Your task to perform on an android device: Open maps Image 0: 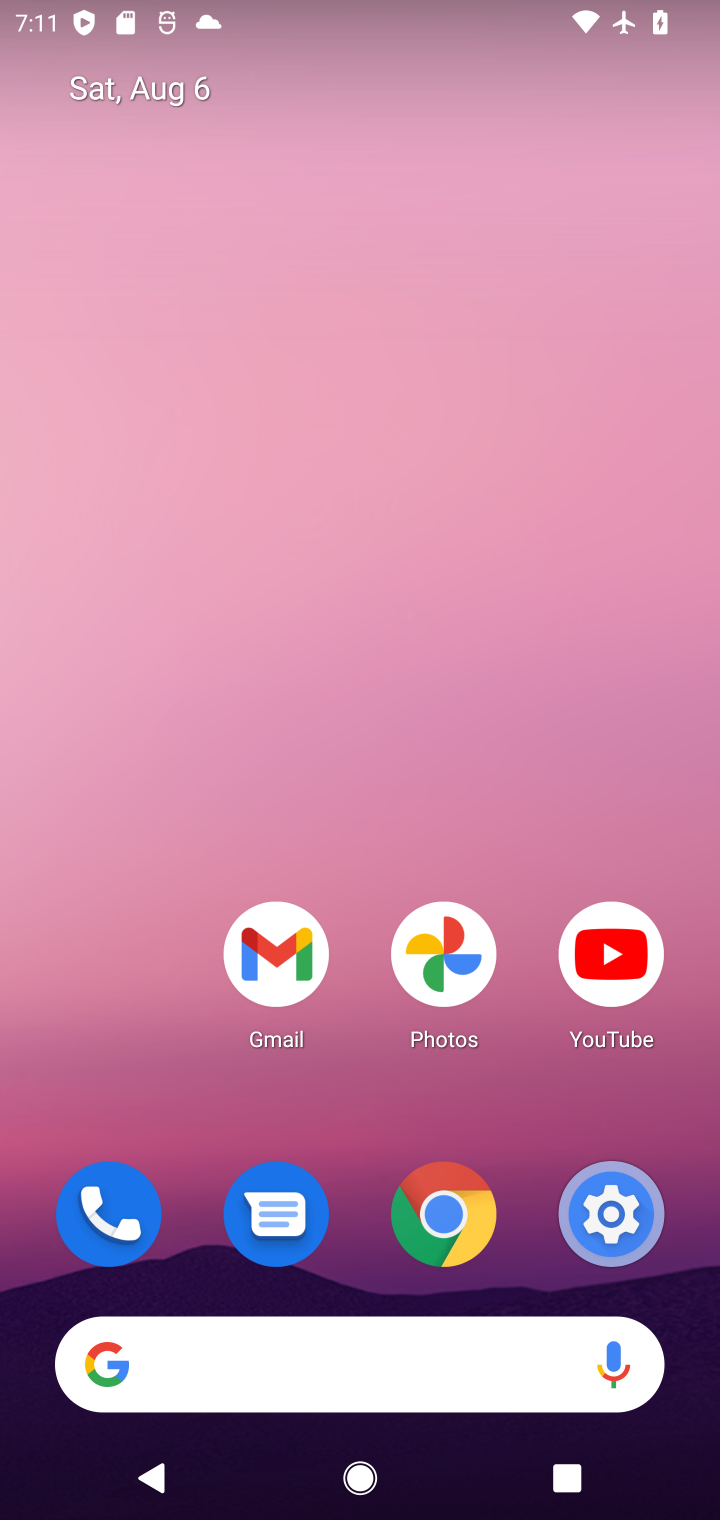
Step 0: drag from (355, 1260) to (364, 500)
Your task to perform on an android device: Open maps Image 1: 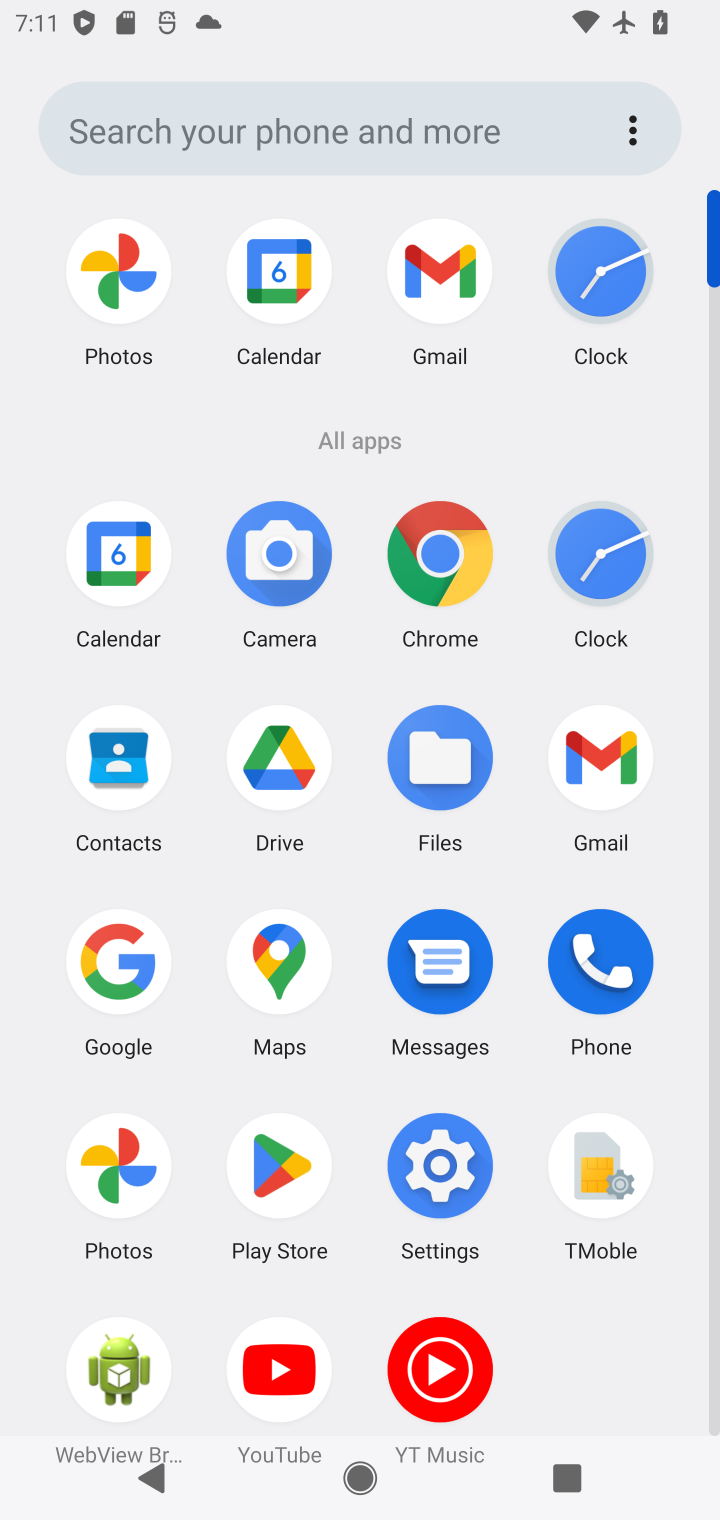
Step 1: click (285, 991)
Your task to perform on an android device: Open maps Image 2: 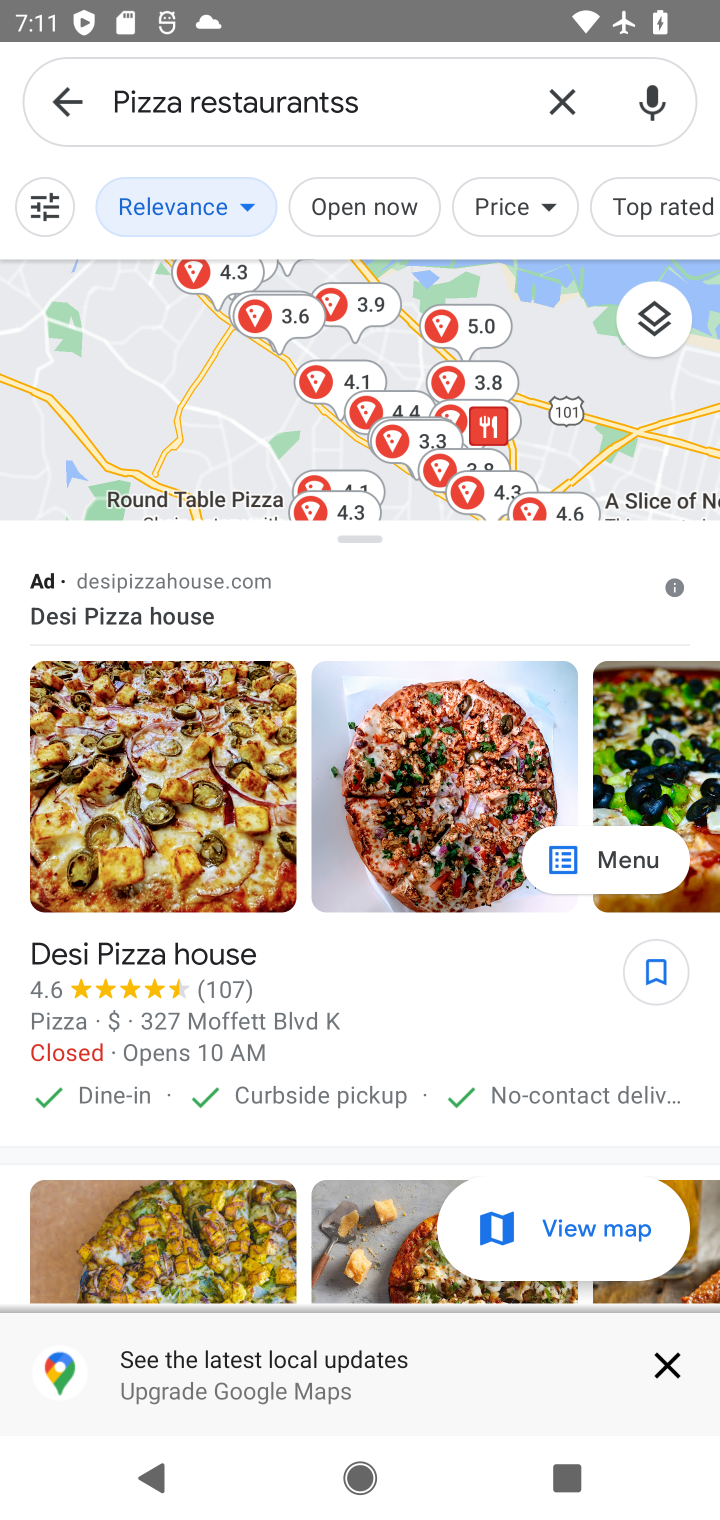
Step 2: click (53, 81)
Your task to perform on an android device: Open maps Image 3: 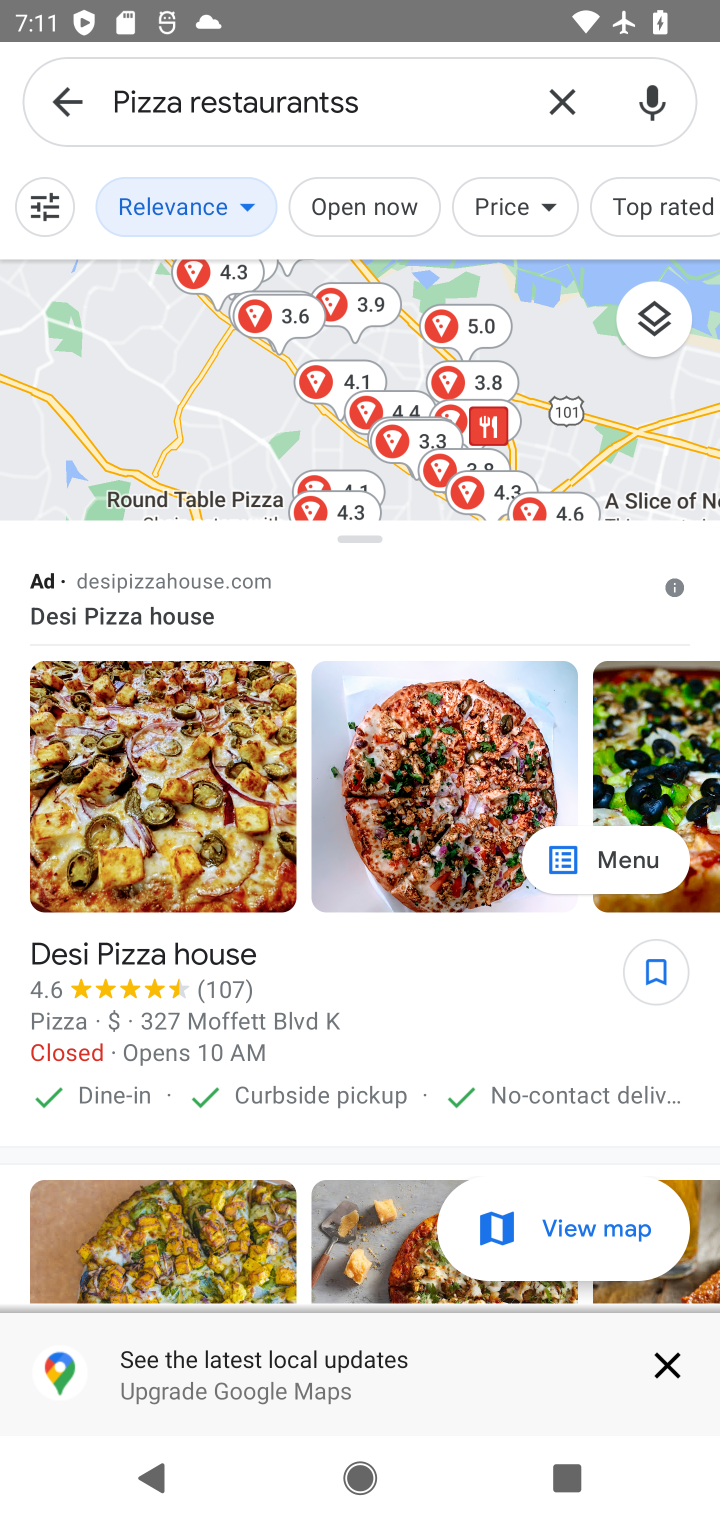
Step 3: task complete